Your task to perform on an android device: find photos in the google photos app Image 0: 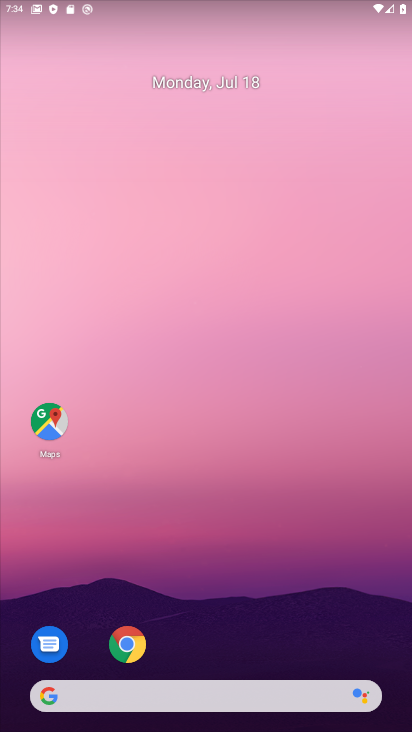
Step 0: drag from (211, 693) to (278, 248)
Your task to perform on an android device: find photos in the google photos app Image 1: 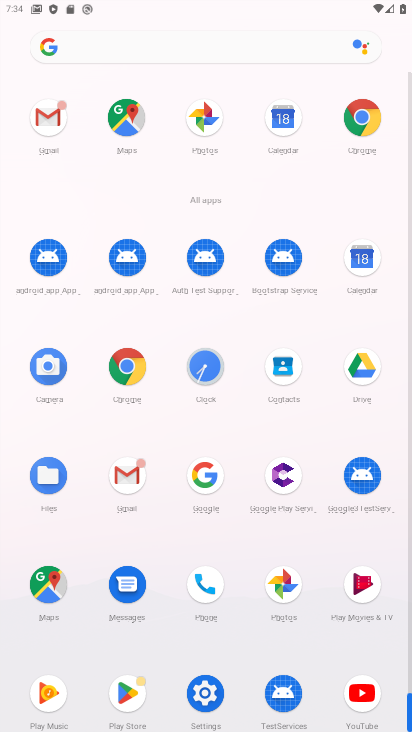
Step 1: click (287, 576)
Your task to perform on an android device: find photos in the google photos app Image 2: 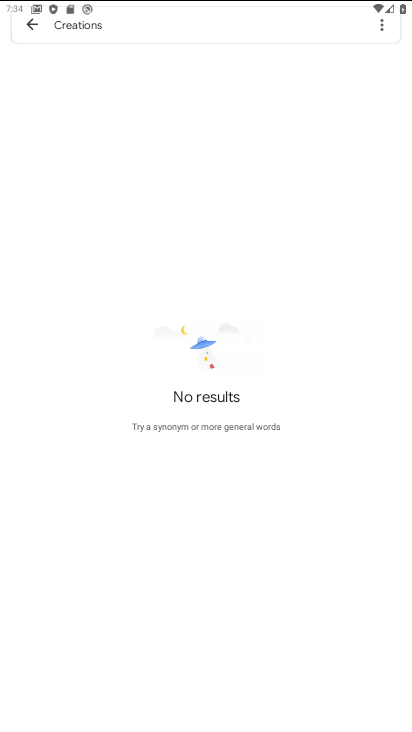
Step 2: click (31, 28)
Your task to perform on an android device: find photos in the google photos app Image 3: 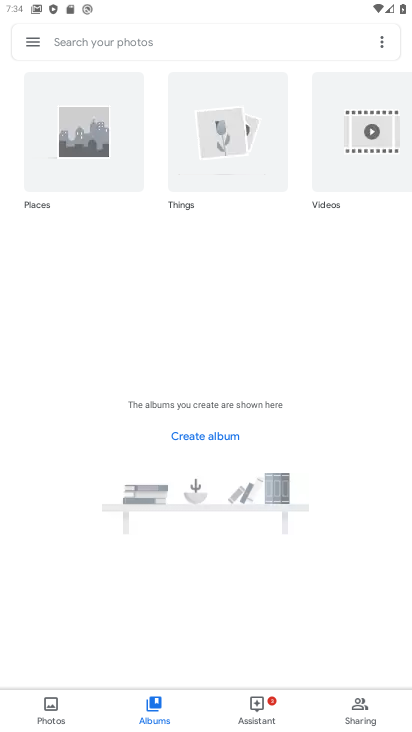
Step 3: click (53, 708)
Your task to perform on an android device: find photos in the google photos app Image 4: 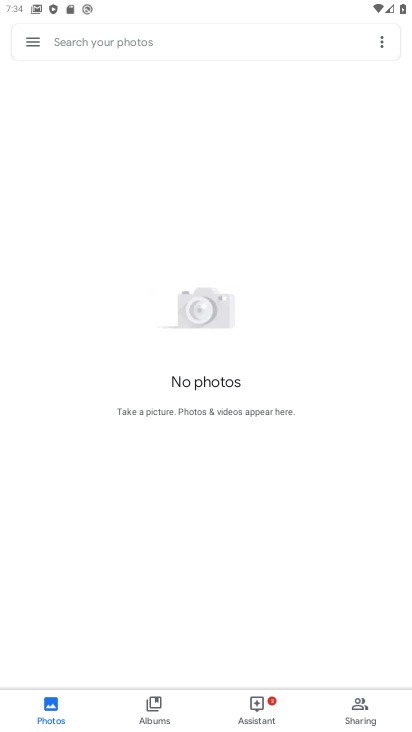
Step 4: task complete